Your task to perform on an android device: Go to Reddit.com Image 0: 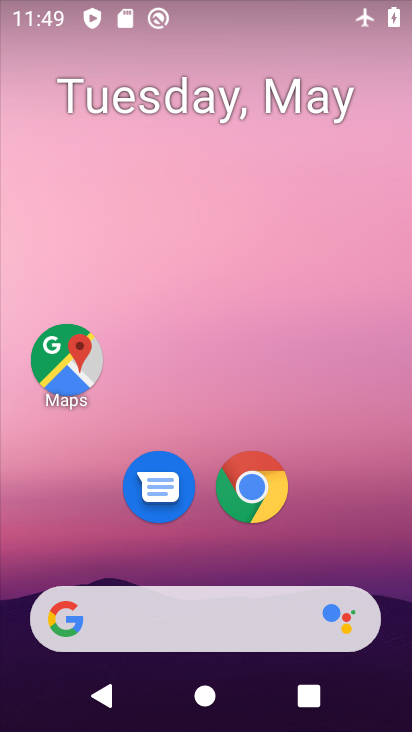
Step 0: click (246, 482)
Your task to perform on an android device: Go to Reddit.com Image 1: 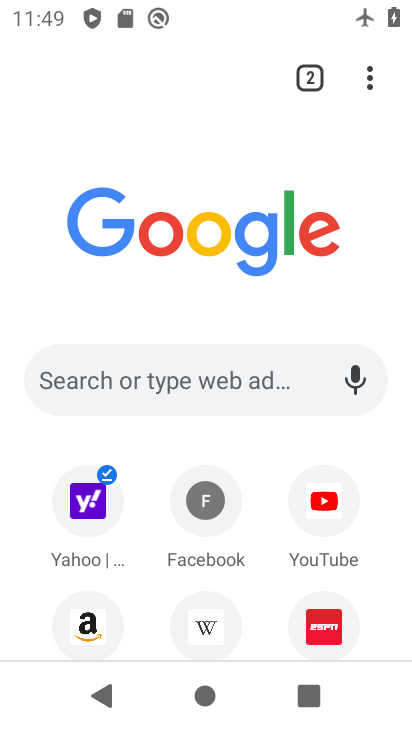
Step 1: click (316, 71)
Your task to perform on an android device: Go to Reddit.com Image 2: 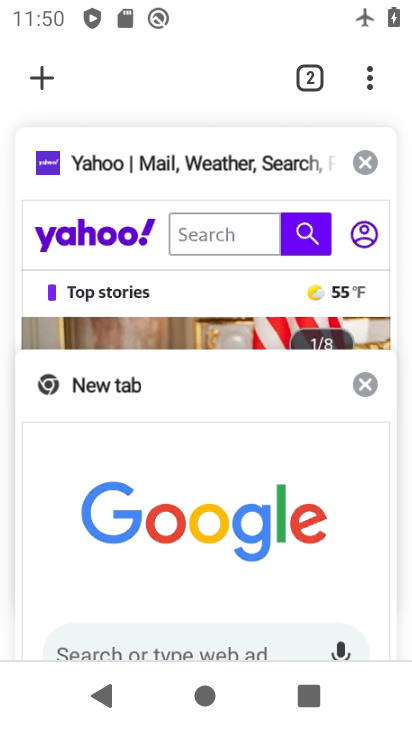
Step 2: click (183, 409)
Your task to perform on an android device: Go to Reddit.com Image 3: 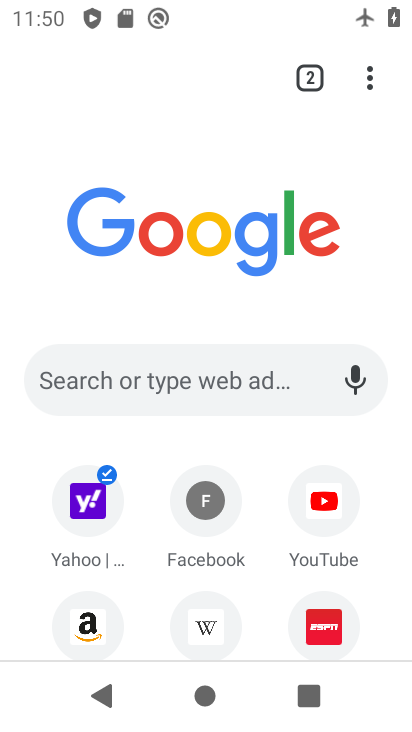
Step 3: click (133, 401)
Your task to perform on an android device: Go to Reddit.com Image 4: 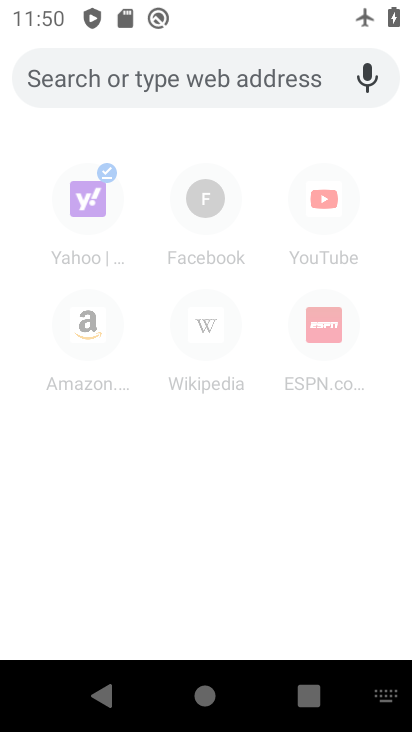
Step 4: type "Reddit.com"
Your task to perform on an android device: Go to Reddit.com Image 5: 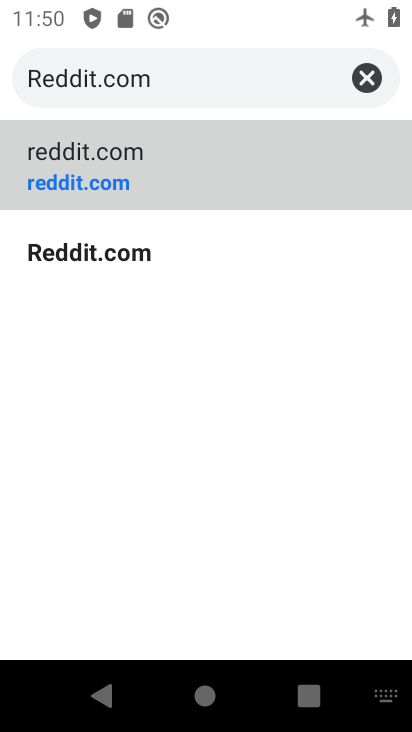
Step 5: click (218, 173)
Your task to perform on an android device: Go to Reddit.com Image 6: 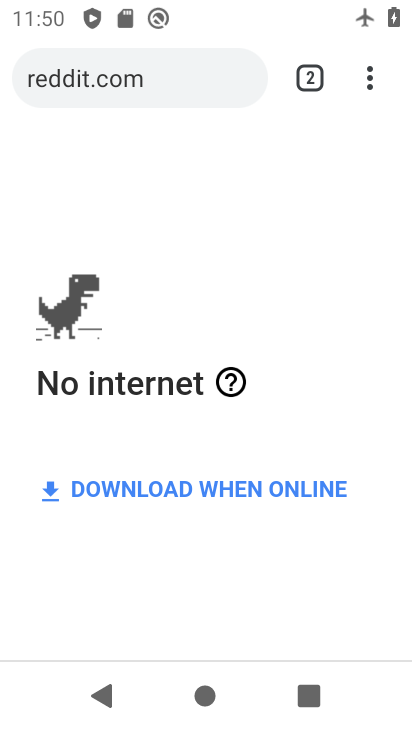
Step 6: press home button
Your task to perform on an android device: Go to Reddit.com Image 7: 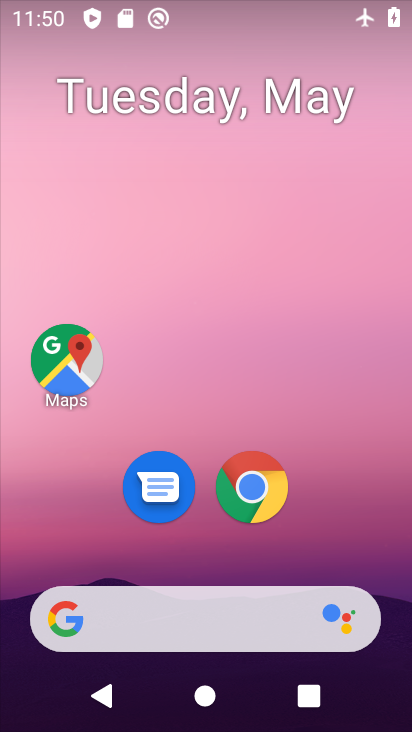
Step 7: drag from (285, 22) to (293, 490)
Your task to perform on an android device: Go to Reddit.com Image 8: 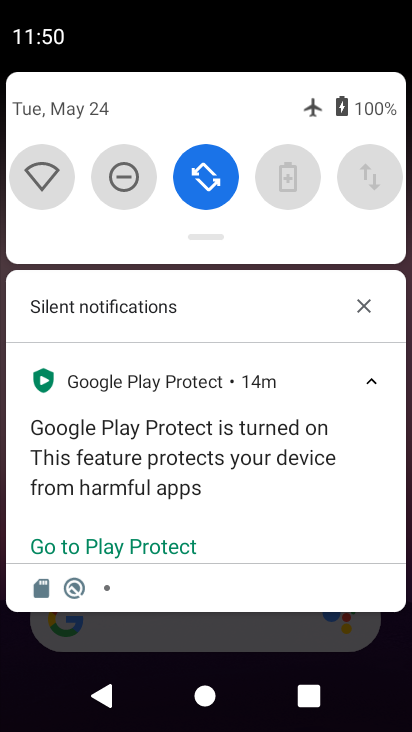
Step 8: drag from (291, 191) to (4, 155)
Your task to perform on an android device: Go to Reddit.com Image 9: 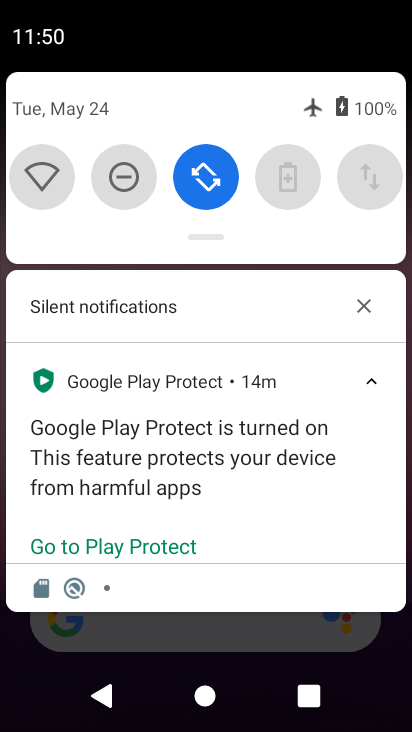
Step 9: drag from (368, 172) to (155, 188)
Your task to perform on an android device: Go to Reddit.com Image 10: 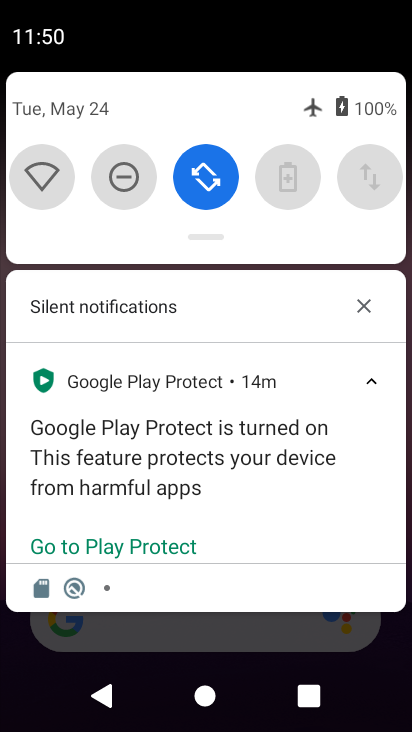
Step 10: drag from (215, 214) to (155, 559)
Your task to perform on an android device: Go to Reddit.com Image 11: 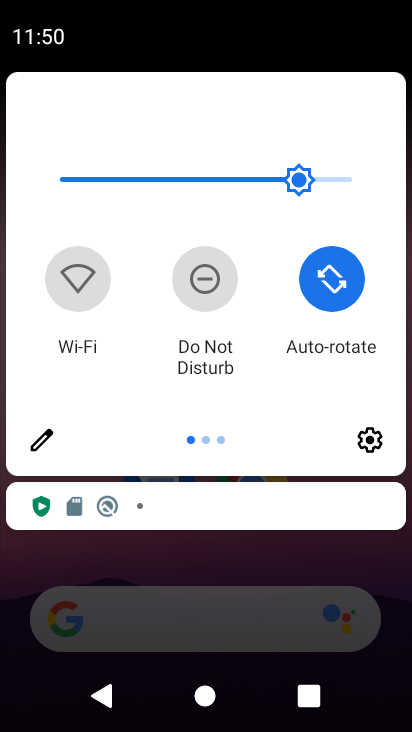
Step 11: drag from (302, 374) to (38, 384)
Your task to perform on an android device: Go to Reddit.com Image 12: 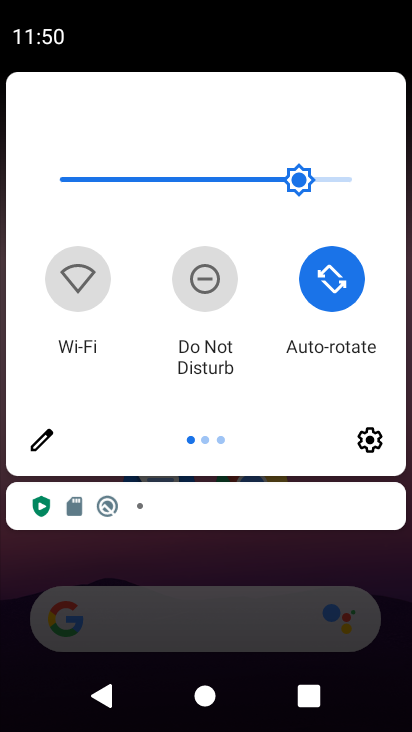
Step 12: drag from (350, 370) to (31, 410)
Your task to perform on an android device: Go to Reddit.com Image 13: 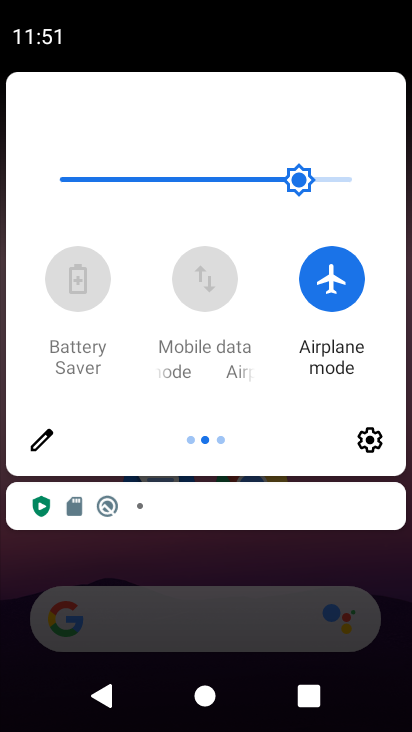
Step 13: click (332, 311)
Your task to perform on an android device: Go to Reddit.com Image 14: 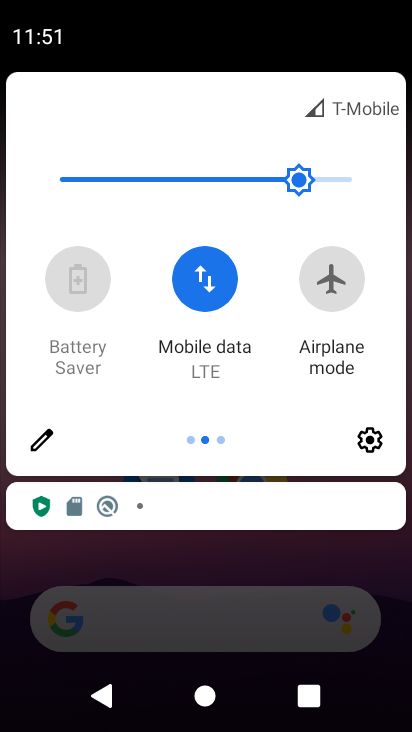
Step 14: press home button
Your task to perform on an android device: Go to Reddit.com Image 15: 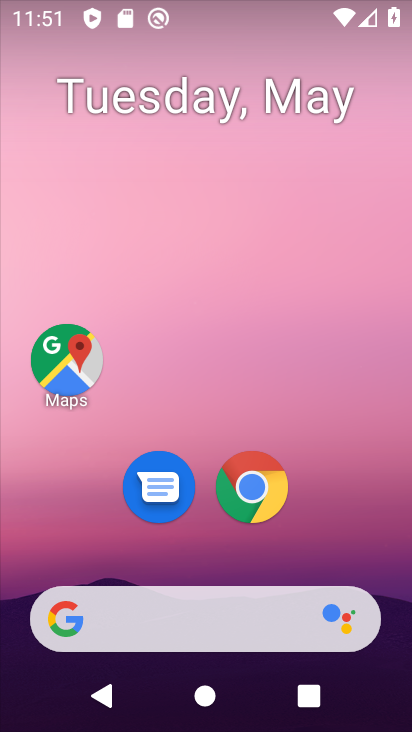
Step 15: press home button
Your task to perform on an android device: Go to Reddit.com Image 16: 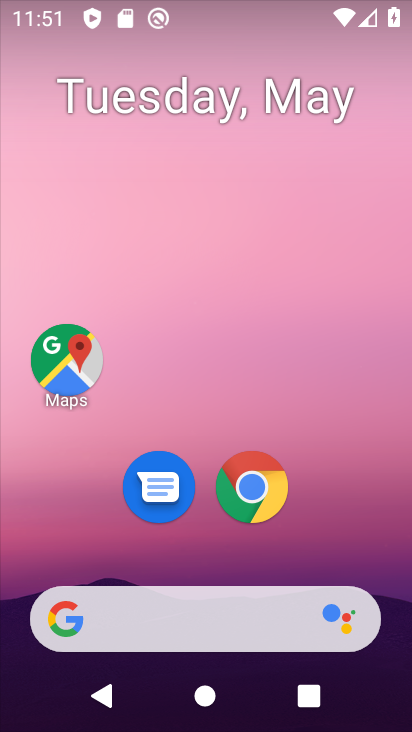
Step 16: press home button
Your task to perform on an android device: Go to Reddit.com Image 17: 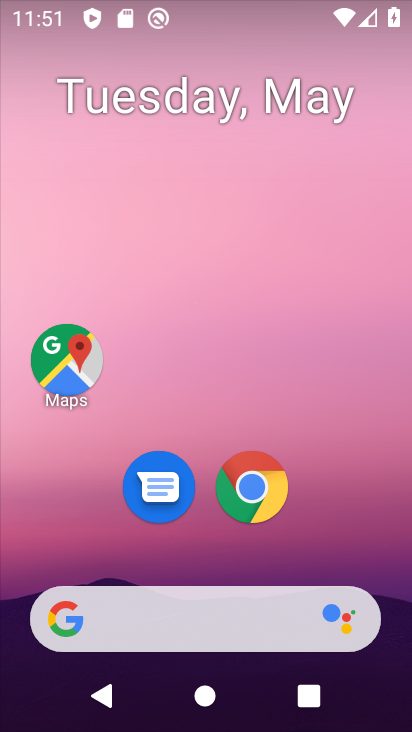
Step 17: click (266, 493)
Your task to perform on an android device: Go to Reddit.com Image 18: 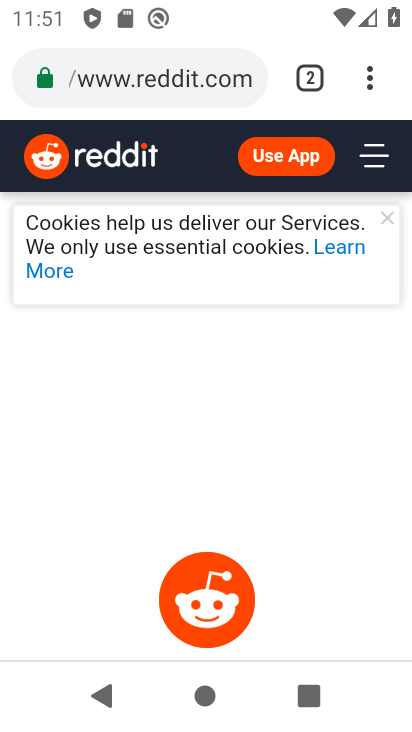
Step 18: task complete